Your task to perform on an android device: Empty the shopping cart on walmart. Add razer deathadder to the cart on walmart Image 0: 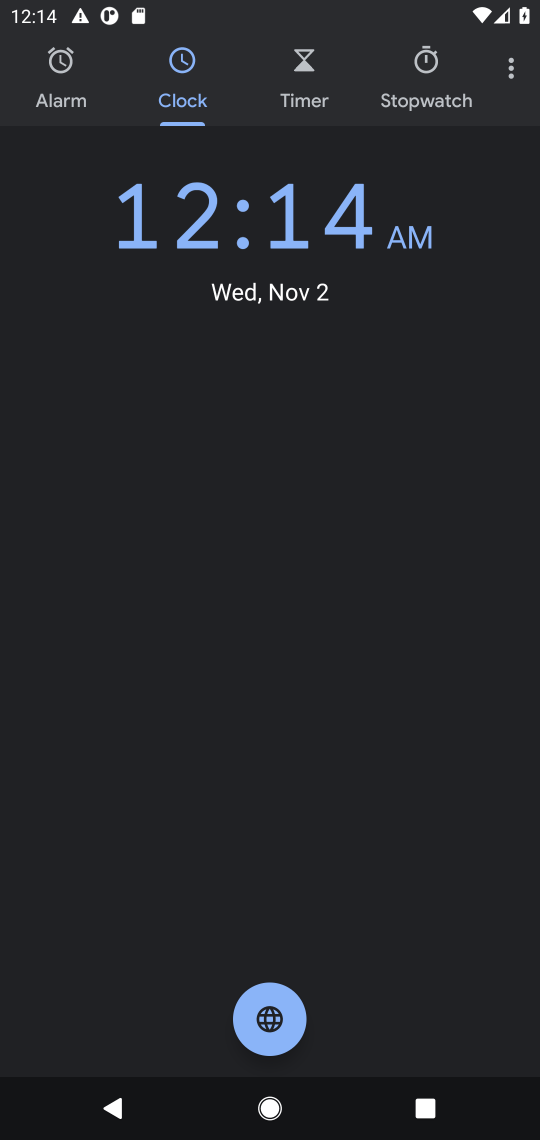
Step 0: press home button
Your task to perform on an android device: Empty the shopping cart on walmart. Add razer deathadder to the cart on walmart Image 1: 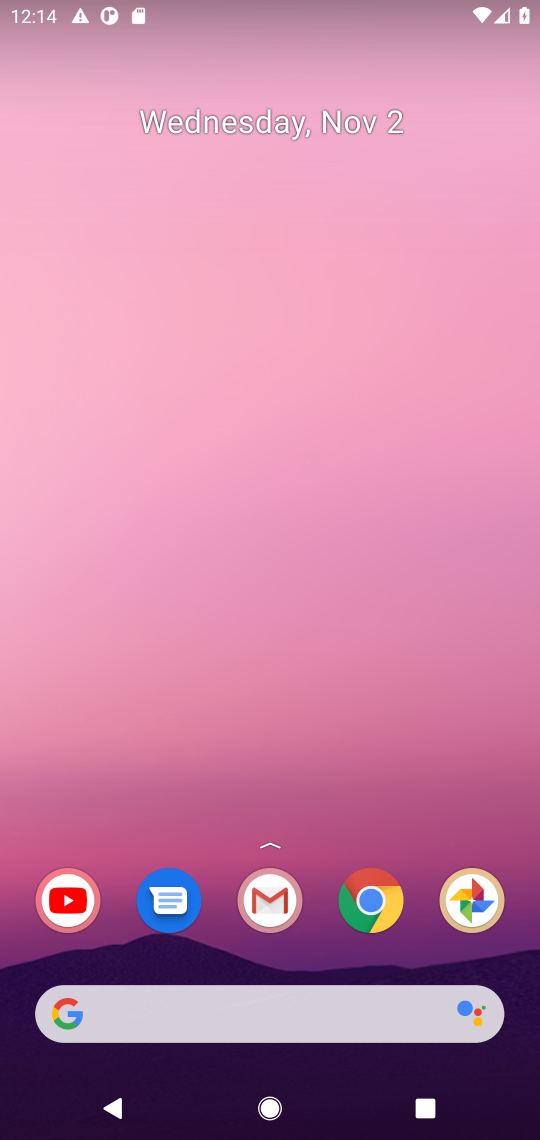
Step 1: click (369, 881)
Your task to perform on an android device: Empty the shopping cart on walmart. Add razer deathadder to the cart on walmart Image 2: 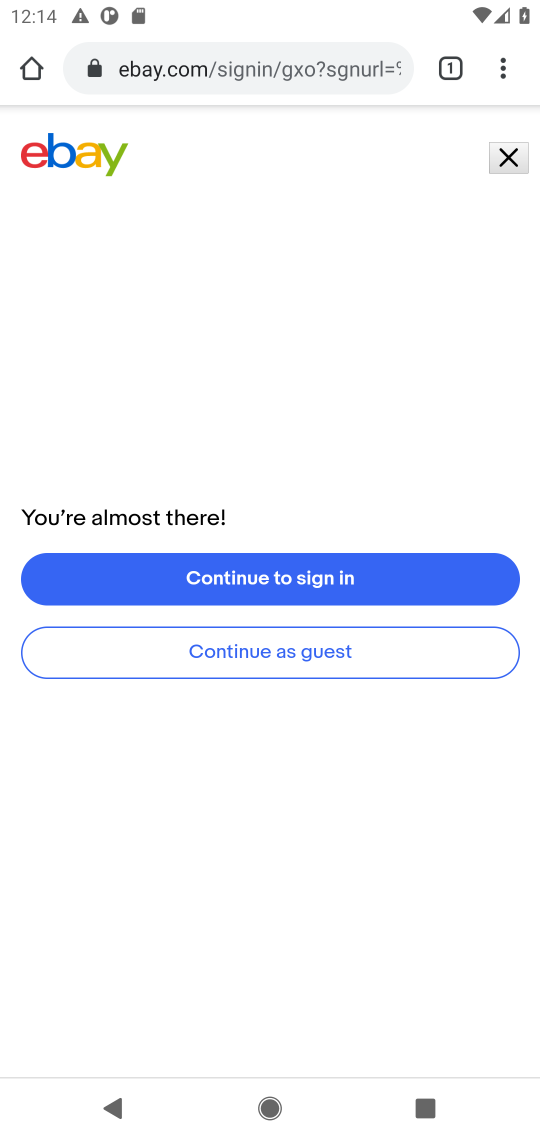
Step 2: press home button
Your task to perform on an android device: Empty the shopping cart on walmart. Add razer deathadder to the cart on walmart Image 3: 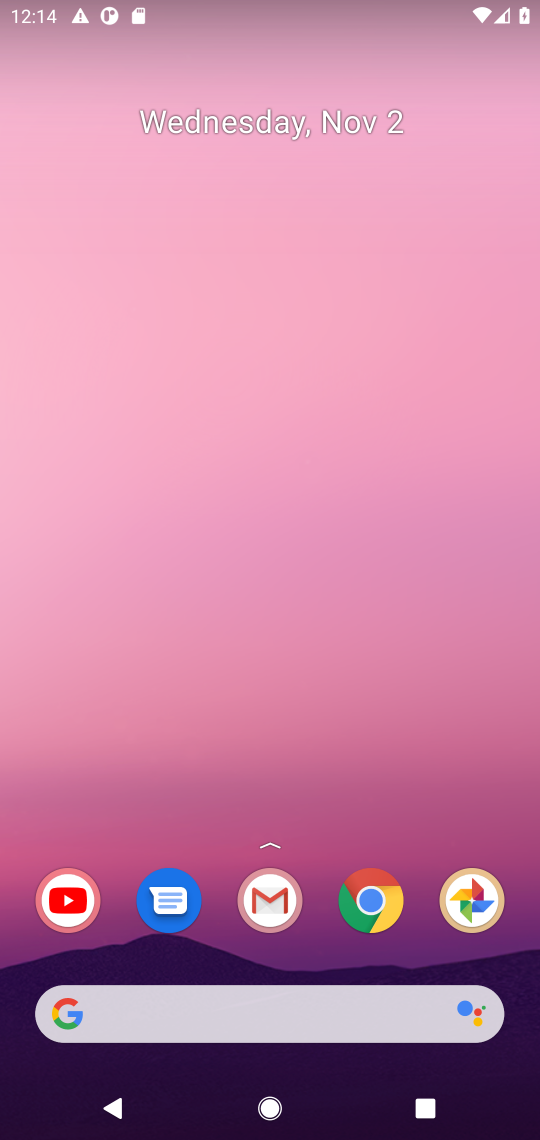
Step 3: click (380, 905)
Your task to perform on an android device: Empty the shopping cart on walmart. Add razer deathadder to the cart on walmart Image 4: 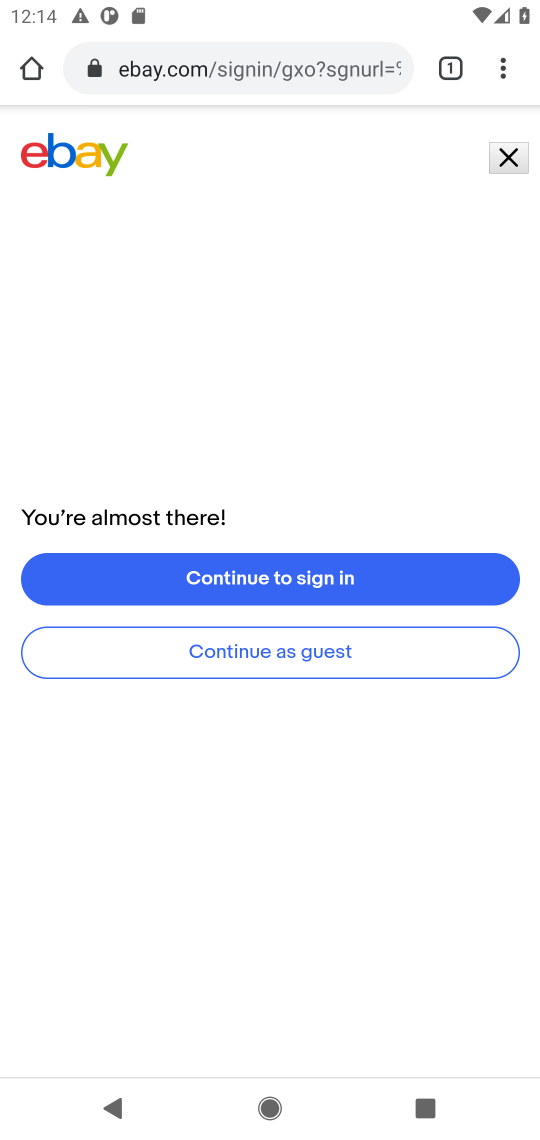
Step 4: click (206, 47)
Your task to perform on an android device: Empty the shopping cart on walmart. Add razer deathadder to the cart on walmart Image 5: 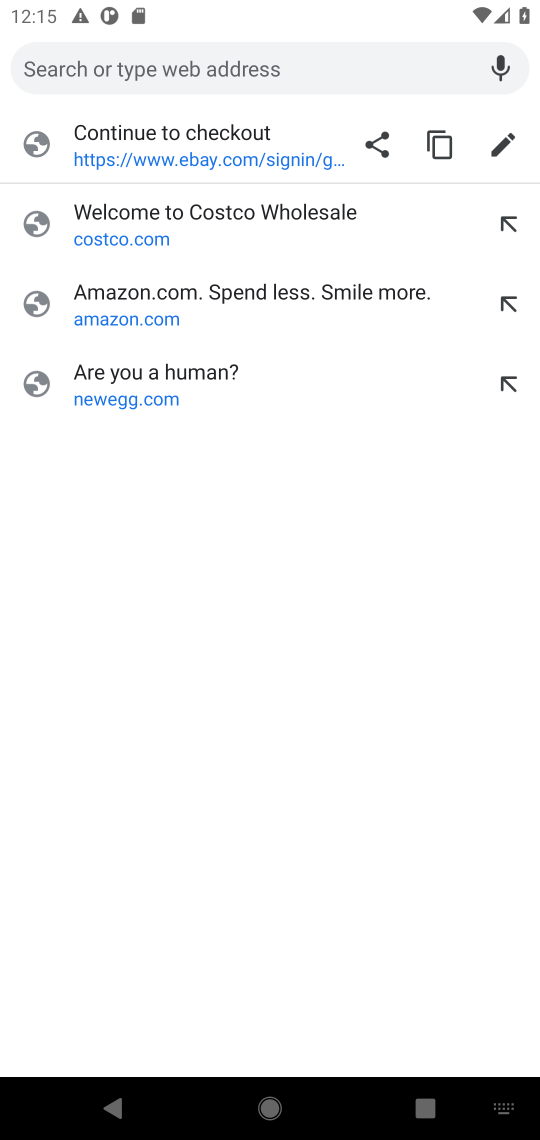
Step 5: type "walmart"
Your task to perform on an android device: Empty the shopping cart on walmart. Add razer deathadder to the cart on walmart Image 6: 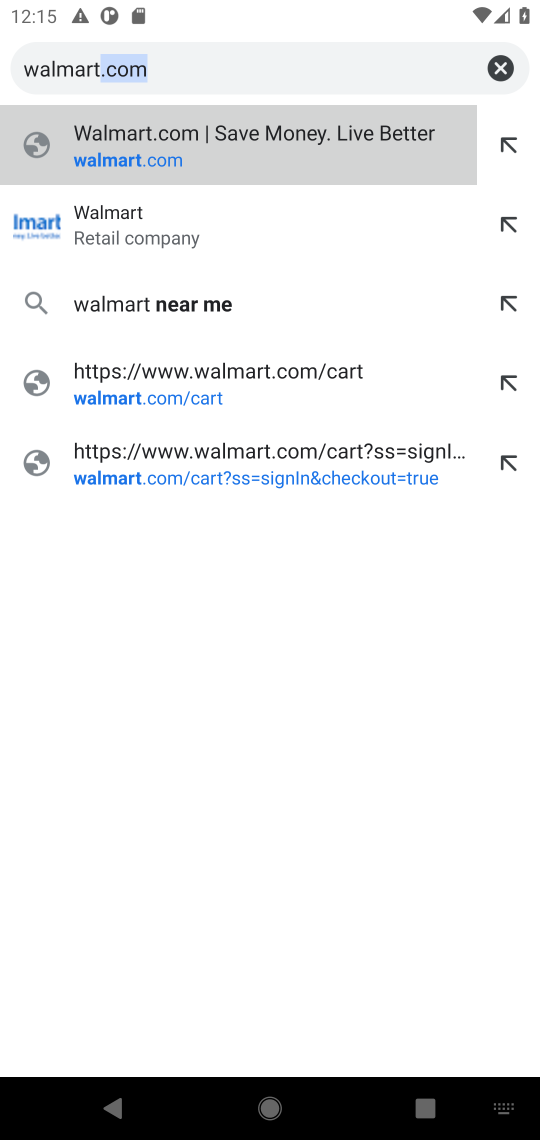
Step 6: click (60, 215)
Your task to perform on an android device: Empty the shopping cart on walmart. Add razer deathadder to the cart on walmart Image 7: 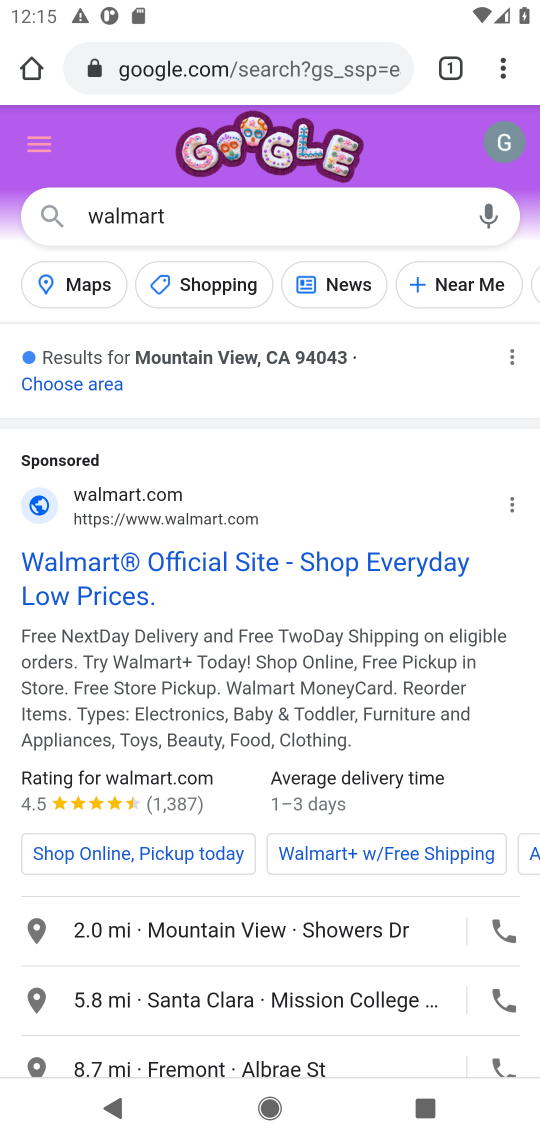
Step 7: click (207, 552)
Your task to perform on an android device: Empty the shopping cart on walmart. Add razer deathadder to the cart on walmart Image 8: 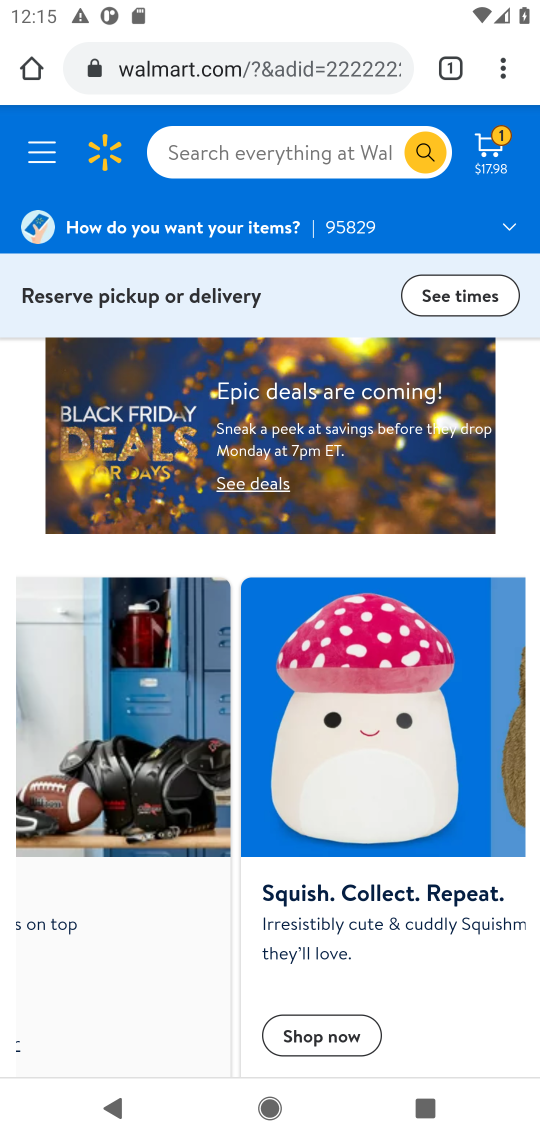
Step 8: click (287, 144)
Your task to perform on an android device: Empty the shopping cart on walmart. Add razer deathadder to the cart on walmart Image 9: 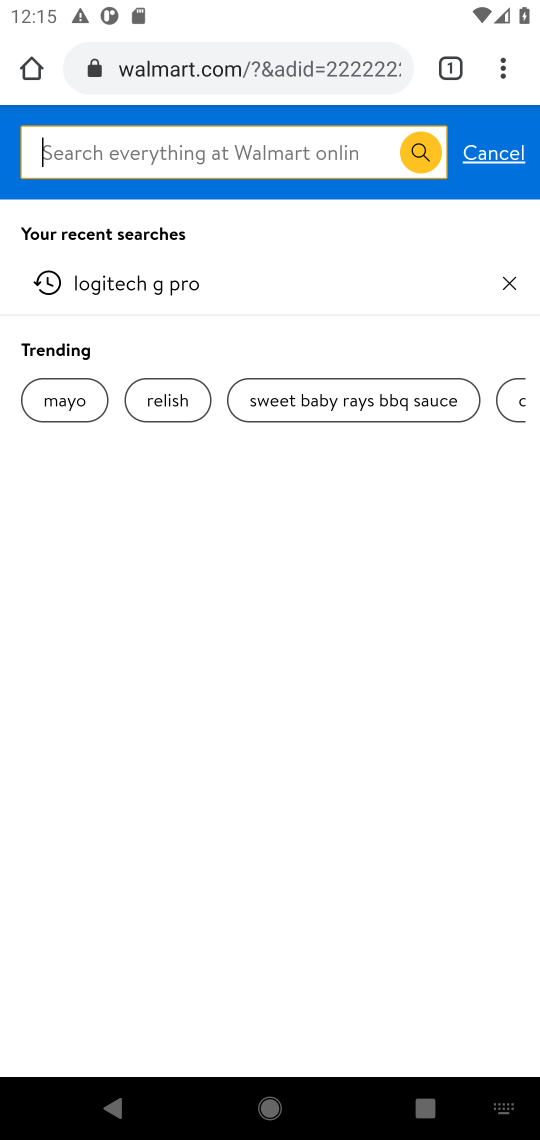
Step 9: type "razer deathadder"
Your task to perform on an android device: Empty the shopping cart on walmart. Add razer deathadder to the cart on walmart Image 10: 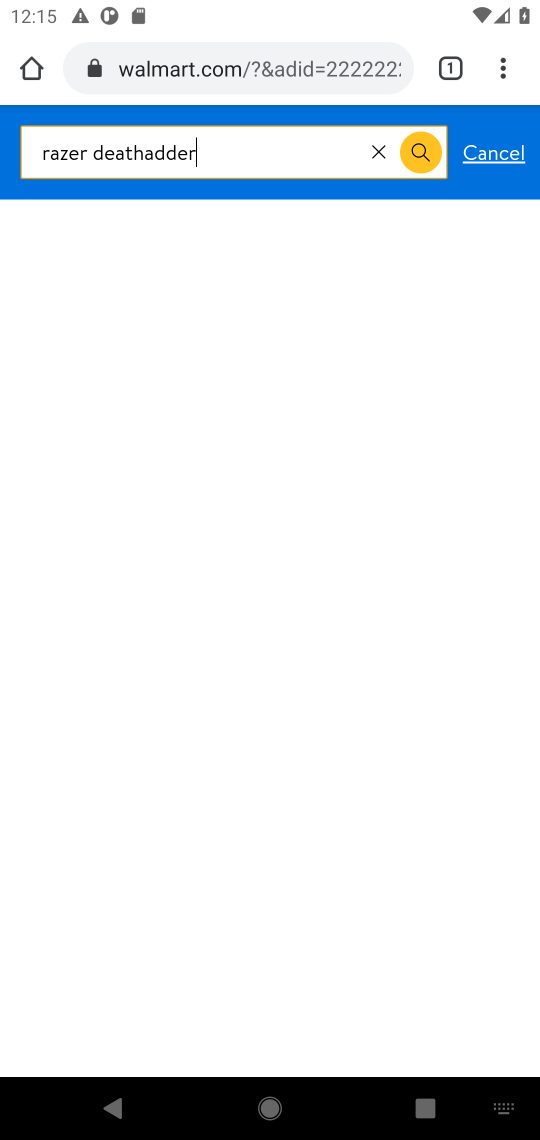
Step 10: type ""
Your task to perform on an android device: Empty the shopping cart on walmart. Add razer deathadder to the cart on walmart Image 11: 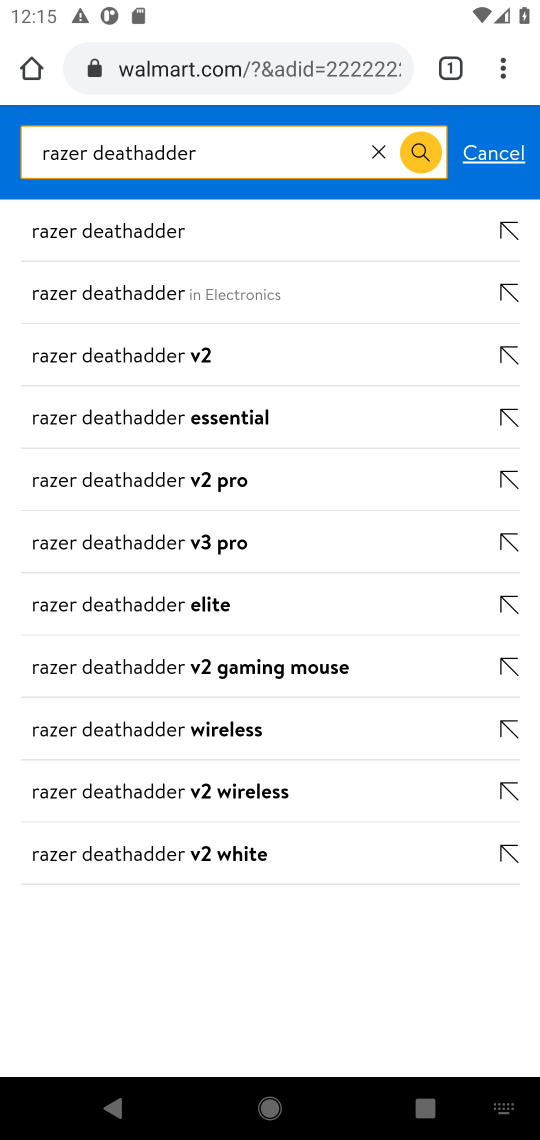
Step 11: click (409, 163)
Your task to perform on an android device: Empty the shopping cart on walmart. Add razer deathadder to the cart on walmart Image 12: 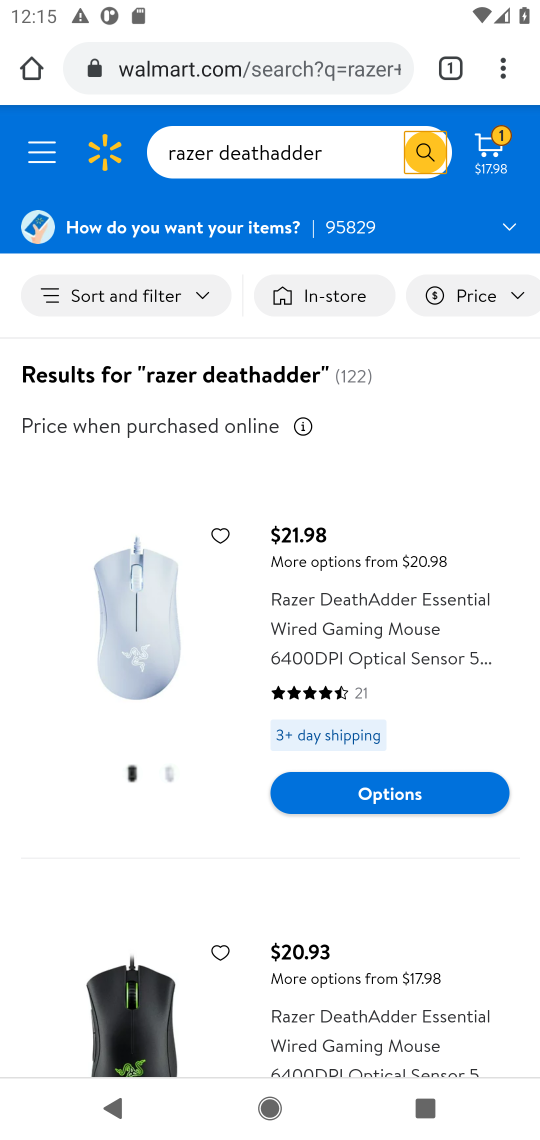
Step 12: click (292, 783)
Your task to perform on an android device: Empty the shopping cart on walmart. Add razer deathadder to the cart on walmart Image 13: 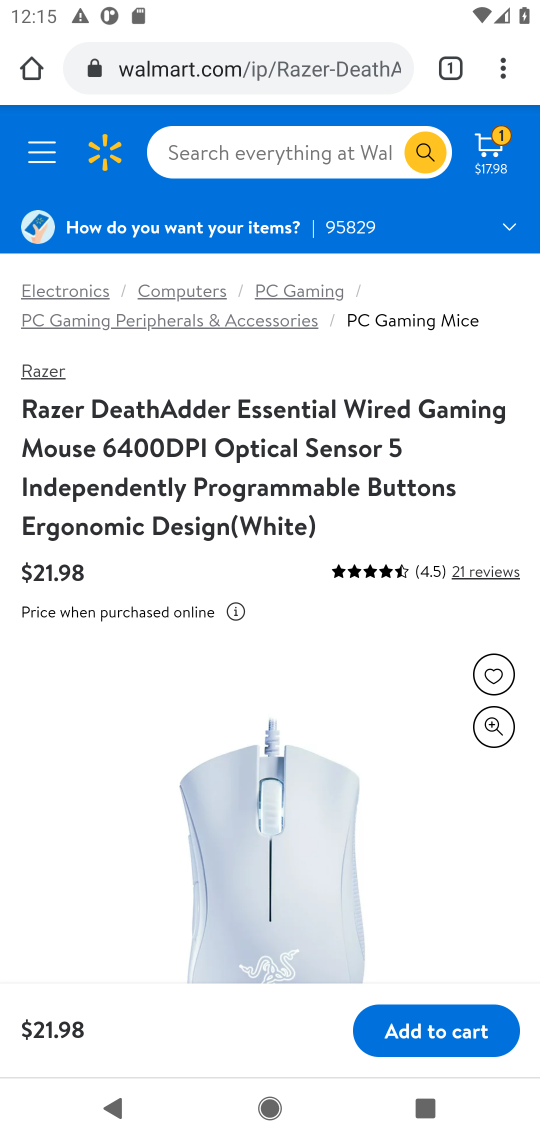
Step 13: drag from (292, 783) to (280, 361)
Your task to perform on an android device: Empty the shopping cart on walmart. Add razer deathadder to the cart on walmart Image 14: 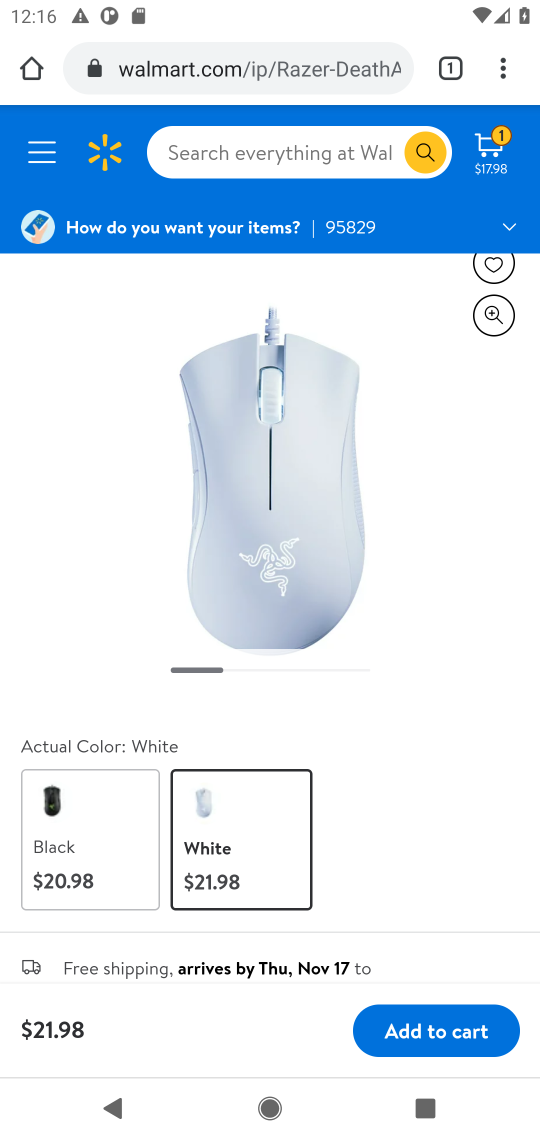
Step 14: drag from (245, 954) to (335, 331)
Your task to perform on an android device: Empty the shopping cart on walmart. Add razer deathadder to the cart on walmart Image 15: 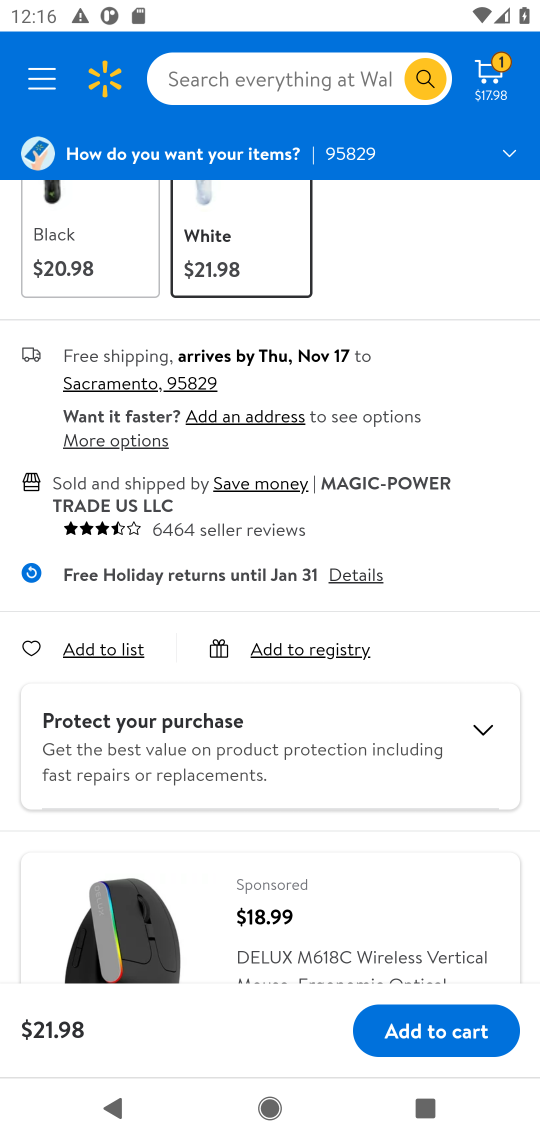
Step 15: drag from (279, 777) to (289, 368)
Your task to perform on an android device: Empty the shopping cart on walmart. Add razer deathadder to the cart on walmart Image 16: 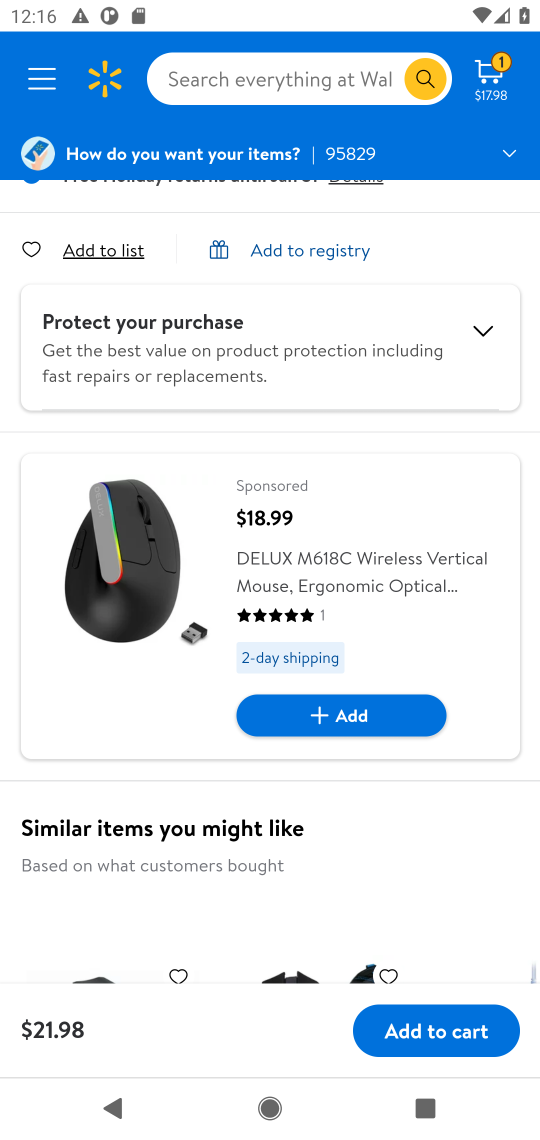
Step 16: click (409, 1010)
Your task to perform on an android device: Empty the shopping cart on walmart. Add razer deathadder to the cart on walmart Image 17: 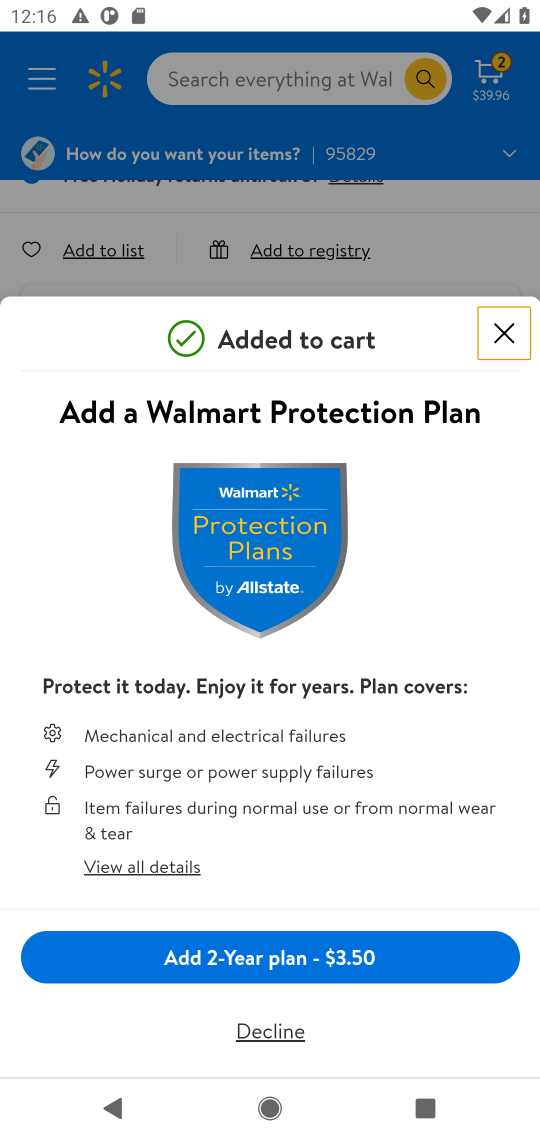
Step 17: task complete